Your task to perform on an android device: clear all cookies in the chrome app Image 0: 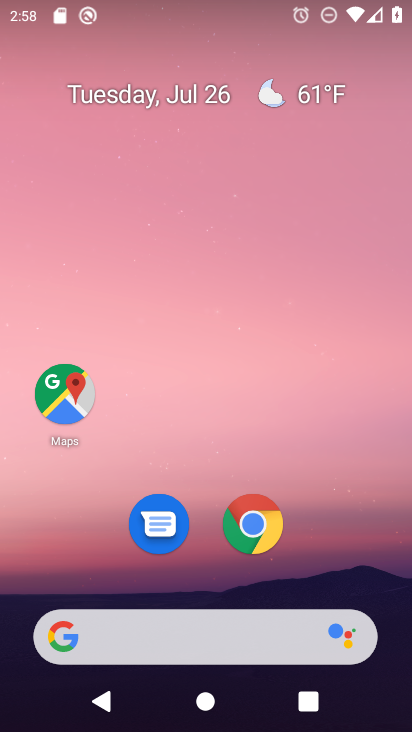
Step 0: press home button
Your task to perform on an android device: clear all cookies in the chrome app Image 1: 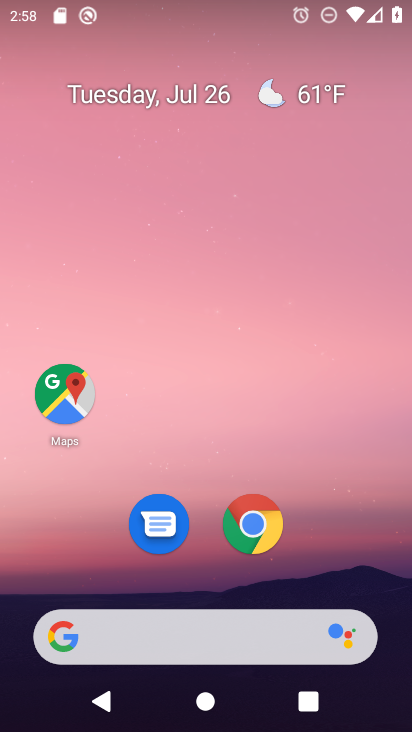
Step 1: click (262, 538)
Your task to perform on an android device: clear all cookies in the chrome app Image 2: 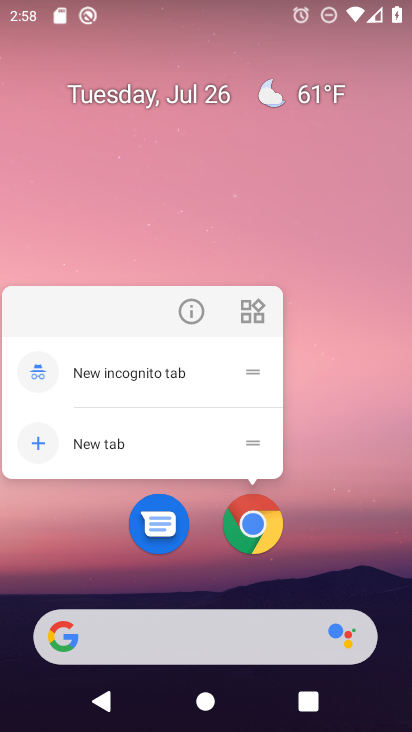
Step 2: click (258, 533)
Your task to perform on an android device: clear all cookies in the chrome app Image 3: 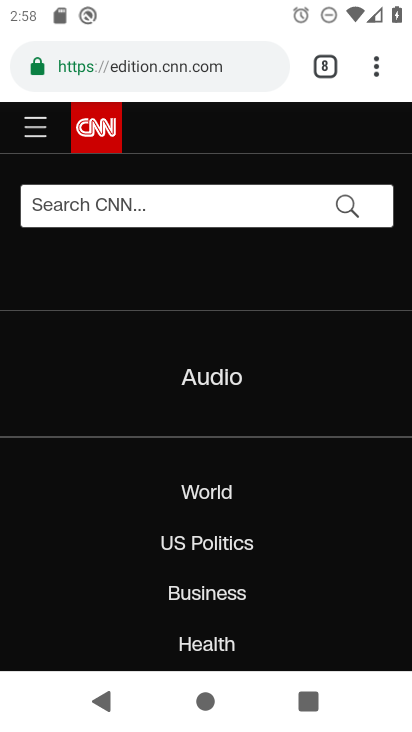
Step 3: drag from (378, 55) to (226, 529)
Your task to perform on an android device: clear all cookies in the chrome app Image 4: 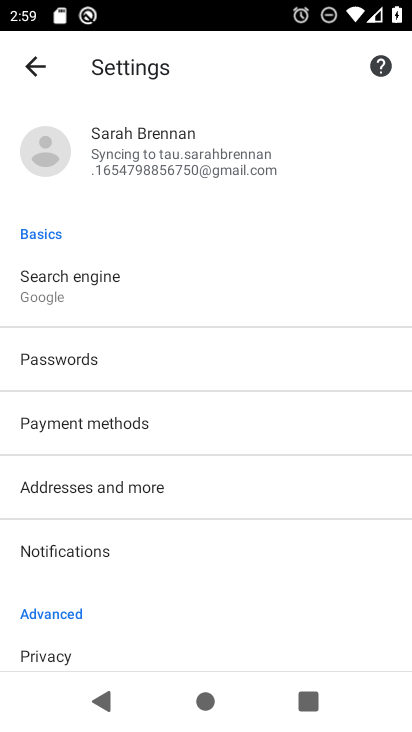
Step 4: click (54, 654)
Your task to perform on an android device: clear all cookies in the chrome app Image 5: 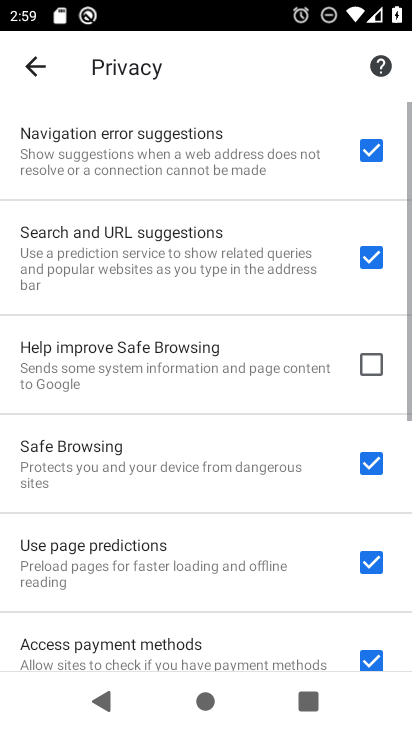
Step 5: drag from (192, 556) to (324, 192)
Your task to perform on an android device: clear all cookies in the chrome app Image 6: 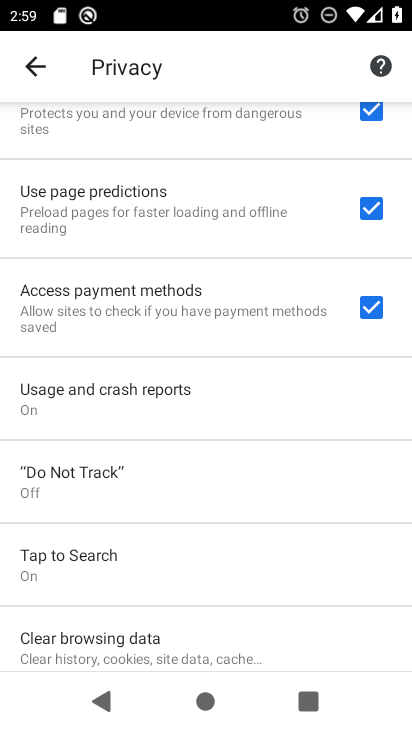
Step 6: drag from (190, 579) to (301, 199)
Your task to perform on an android device: clear all cookies in the chrome app Image 7: 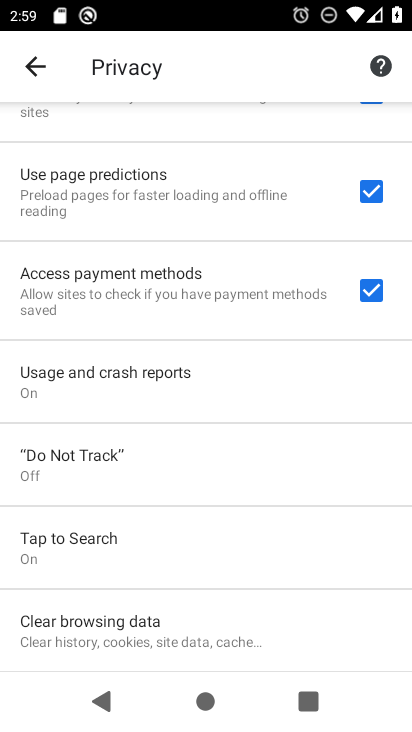
Step 7: click (134, 622)
Your task to perform on an android device: clear all cookies in the chrome app Image 8: 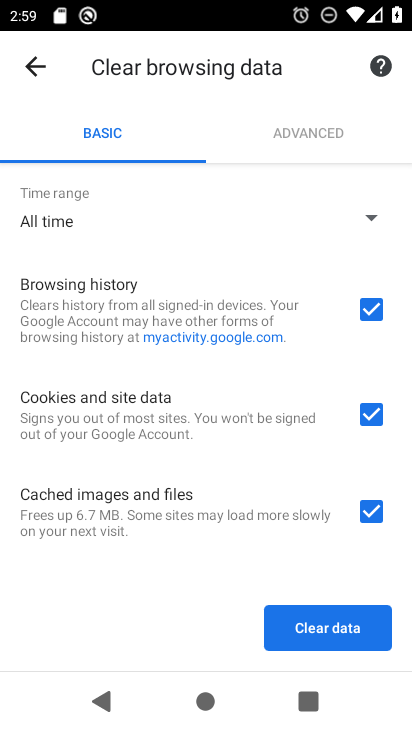
Step 8: click (374, 300)
Your task to perform on an android device: clear all cookies in the chrome app Image 9: 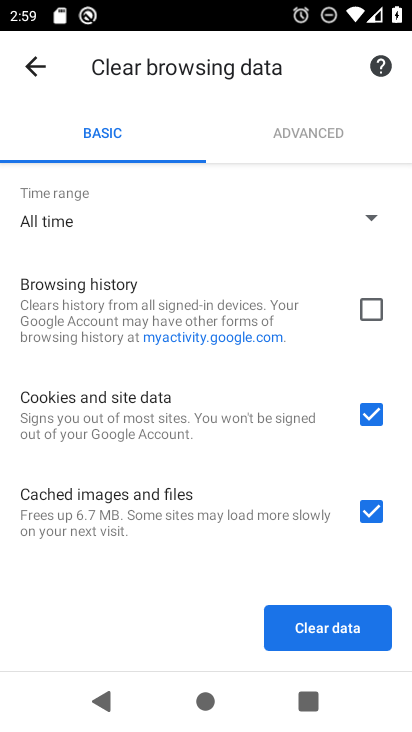
Step 9: click (372, 513)
Your task to perform on an android device: clear all cookies in the chrome app Image 10: 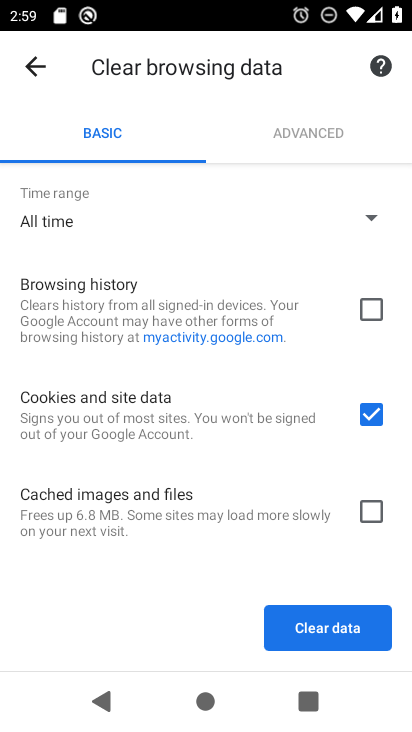
Step 10: click (343, 633)
Your task to perform on an android device: clear all cookies in the chrome app Image 11: 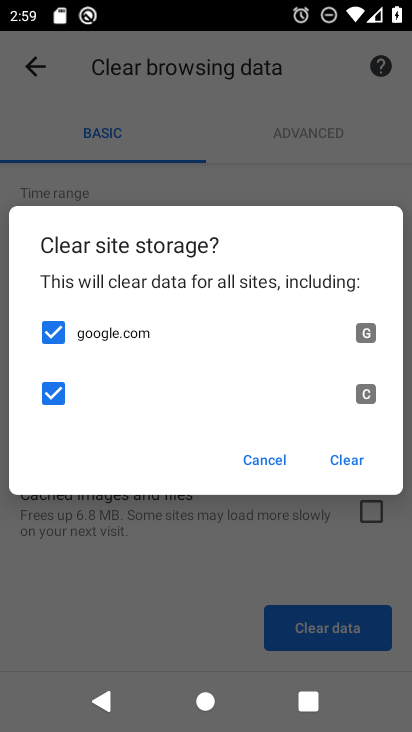
Step 11: click (345, 456)
Your task to perform on an android device: clear all cookies in the chrome app Image 12: 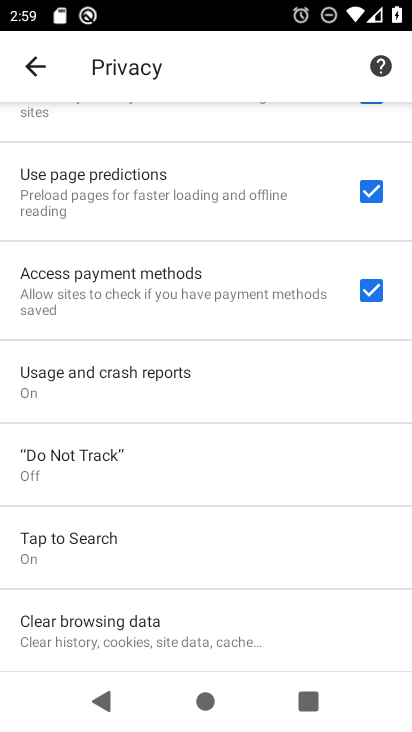
Step 12: task complete